Your task to perform on an android device: empty trash in google photos Image 0: 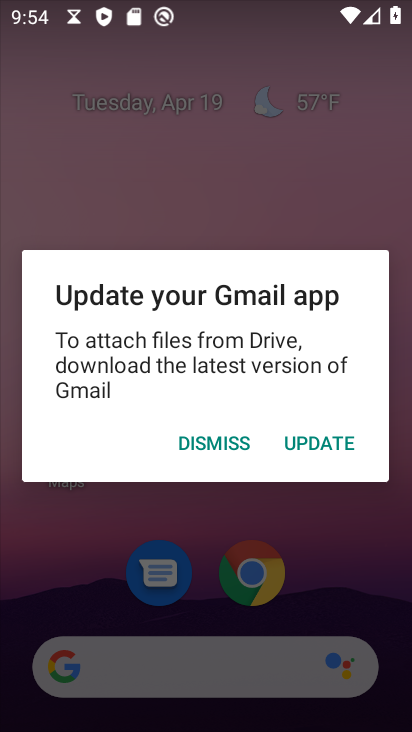
Step 0: press home button
Your task to perform on an android device: empty trash in google photos Image 1: 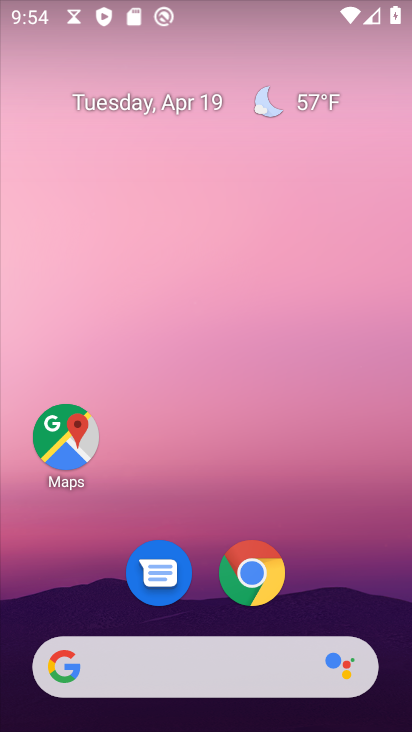
Step 1: drag from (302, 549) to (280, 100)
Your task to perform on an android device: empty trash in google photos Image 2: 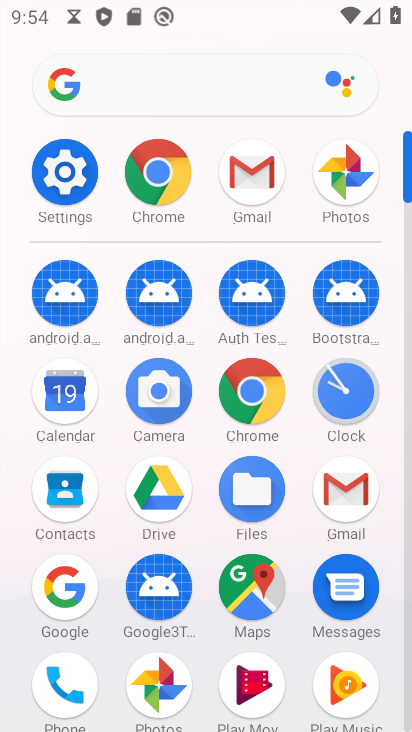
Step 2: click (339, 170)
Your task to perform on an android device: empty trash in google photos Image 3: 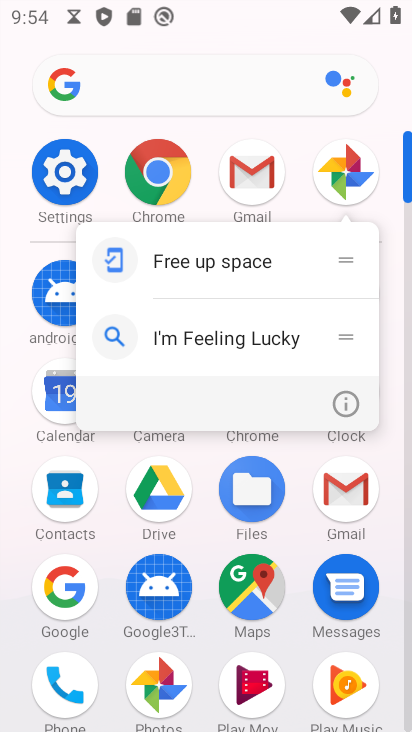
Step 3: click (334, 173)
Your task to perform on an android device: empty trash in google photos Image 4: 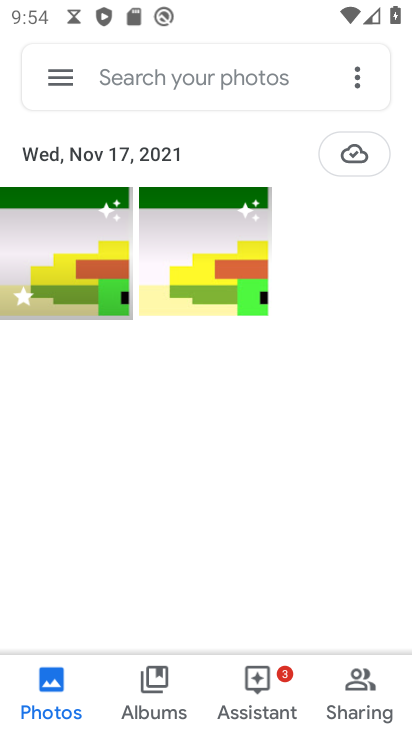
Step 4: click (66, 77)
Your task to perform on an android device: empty trash in google photos Image 5: 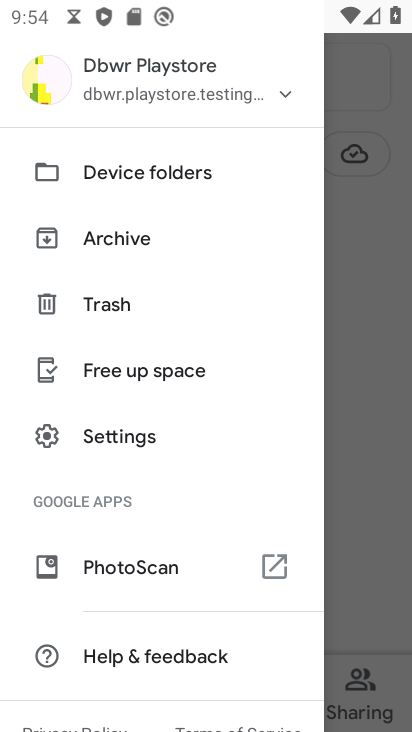
Step 5: click (102, 303)
Your task to perform on an android device: empty trash in google photos Image 6: 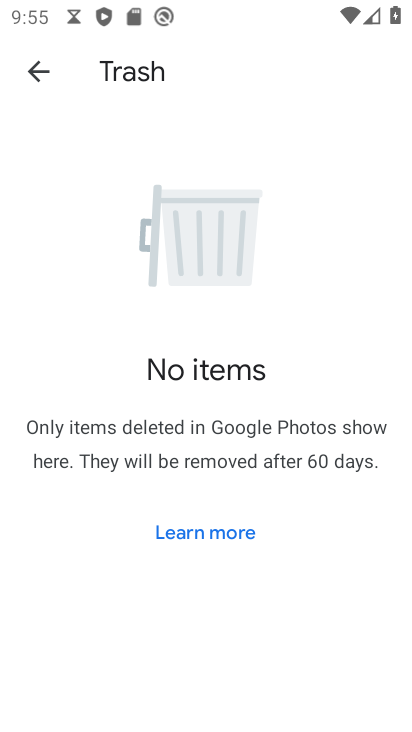
Step 6: task complete